Your task to perform on an android device: Open Amazon Image 0: 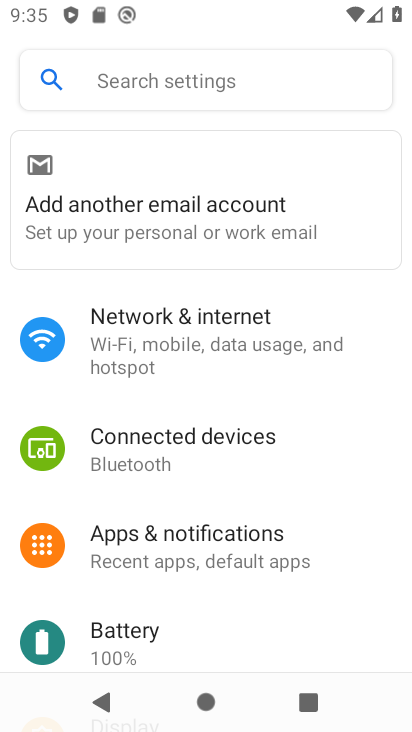
Step 0: press home button
Your task to perform on an android device: Open Amazon Image 1: 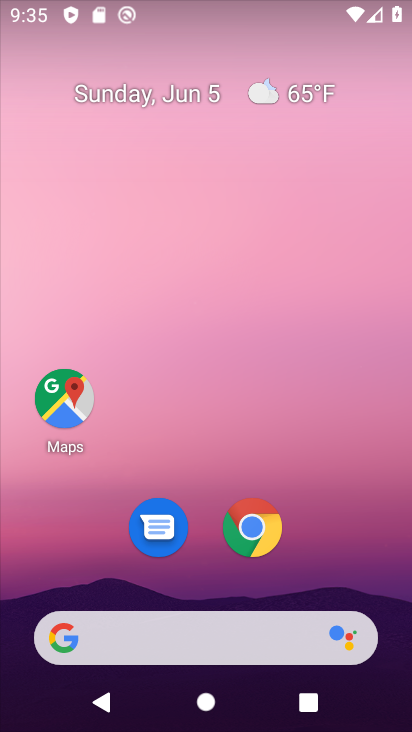
Step 1: click (263, 528)
Your task to perform on an android device: Open Amazon Image 2: 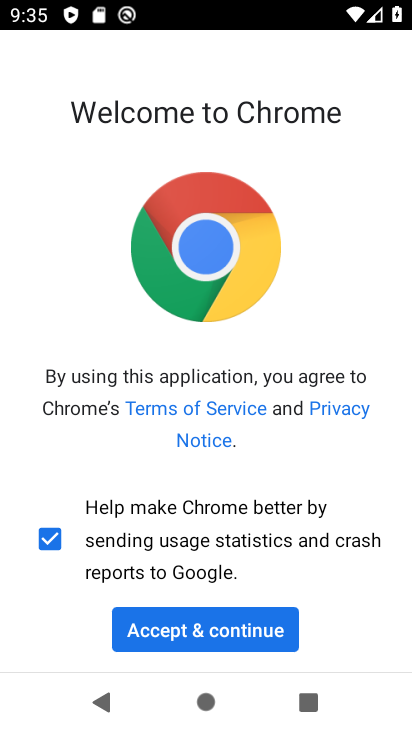
Step 2: click (186, 629)
Your task to perform on an android device: Open Amazon Image 3: 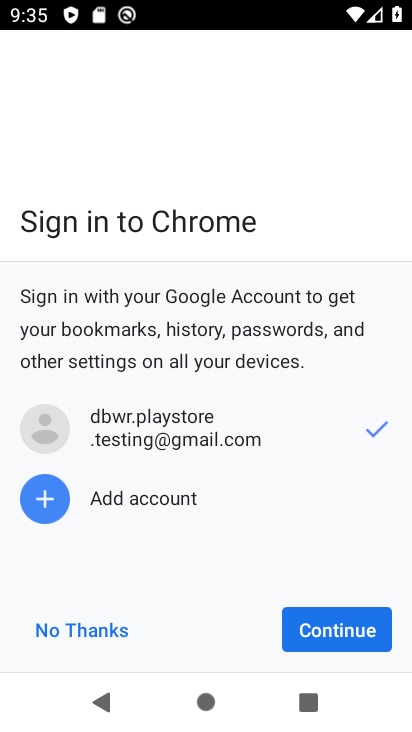
Step 3: click (362, 619)
Your task to perform on an android device: Open Amazon Image 4: 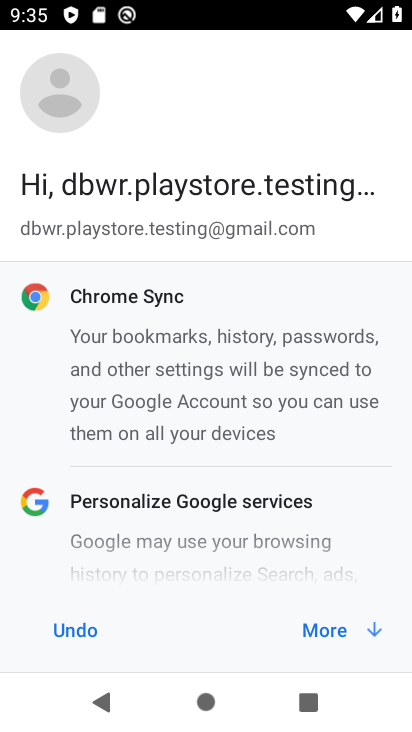
Step 4: click (323, 621)
Your task to perform on an android device: Open Amazon Image 5: 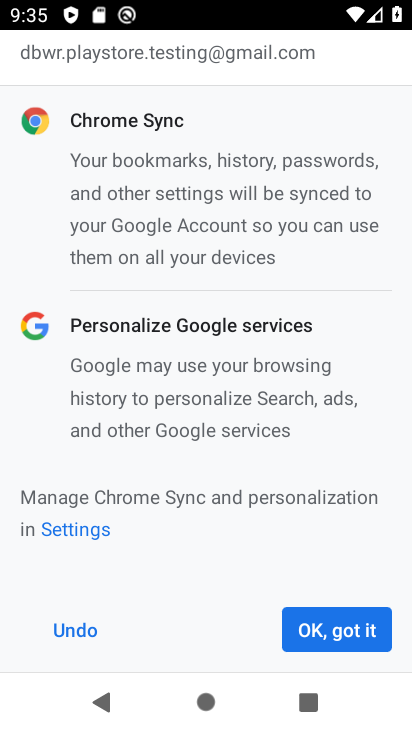
Step 5: click (351, 646)
Your task to perform on an android device: Open Amazon Image 6: 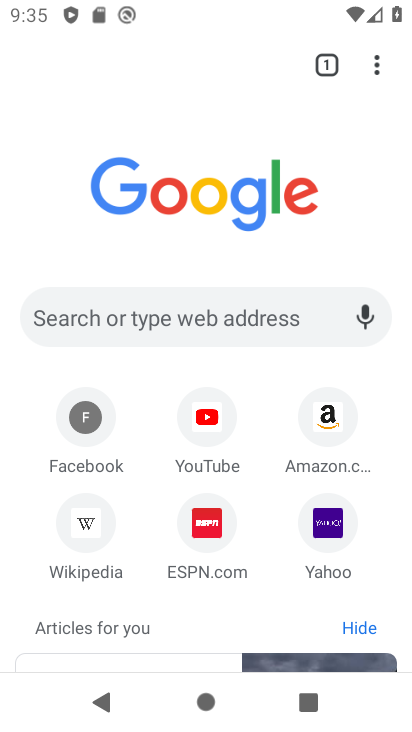
Step 6: click (334, 430)
Your task to perform on an android device: Open Amazon Image 7: 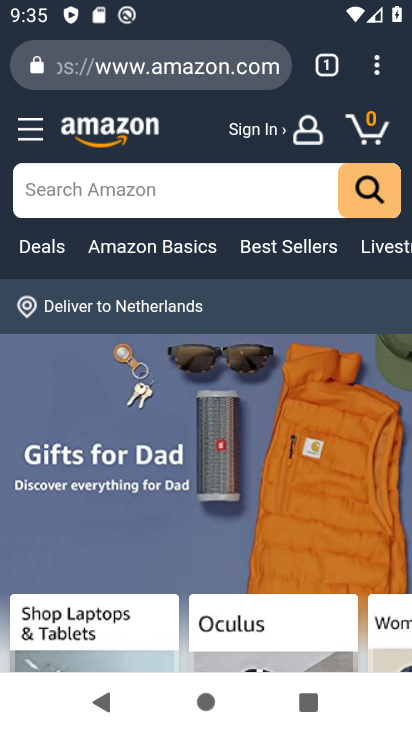
Step 7: task complete